Your task to perform on an android device: turn on priority inbox in the gmail app Image 0: 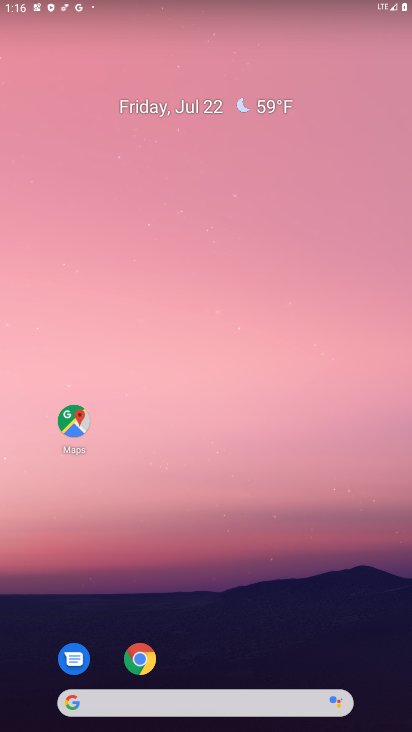
Step 0: drag from (281, 582) to (201, 62)
Your task to perform on an android device: turn on priority inbox in the gmail app Image 1: 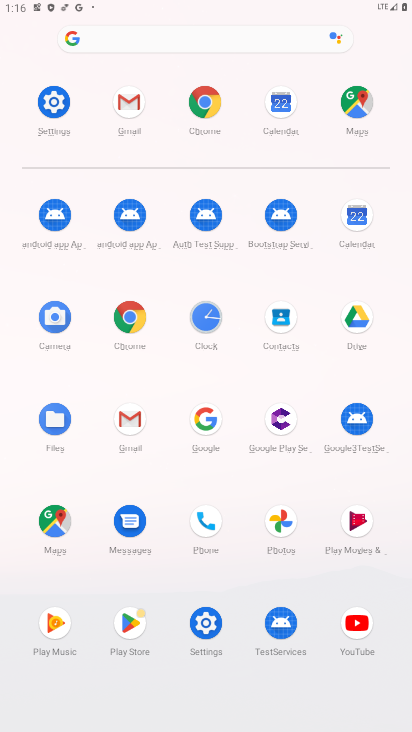
Step 1: click (129, 103)
Your task to perform on an android device: turn on priority inbox in the gmail app Image 2: 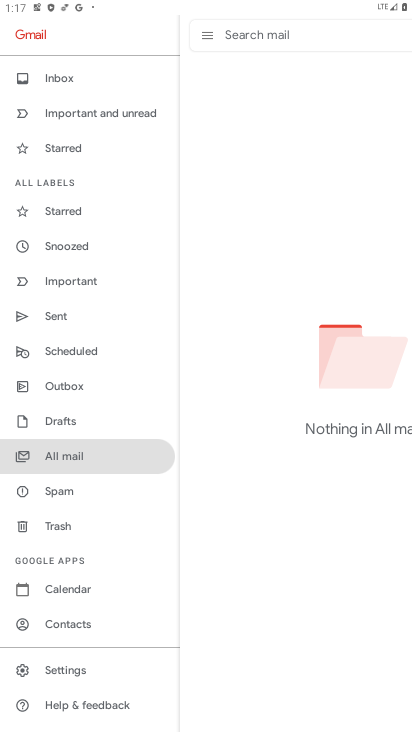
Step 2: click (67, 665)
Your task to perform on an android device: turn on priority inbox in the gmail app Image 3: 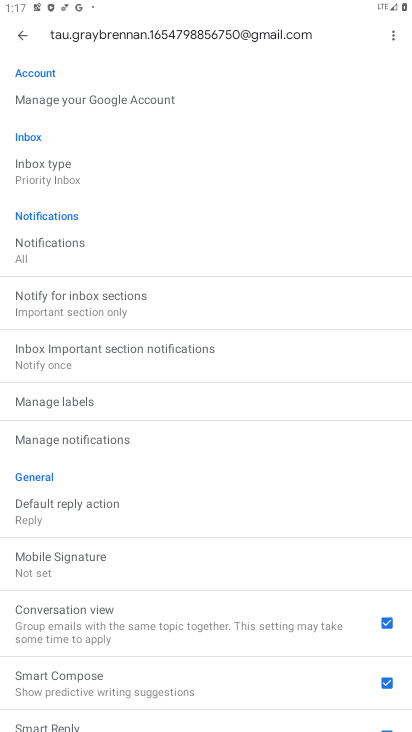
Step 3: task complete